Your task to perform on an android device: Is it going to rain this weekend? Image 0: 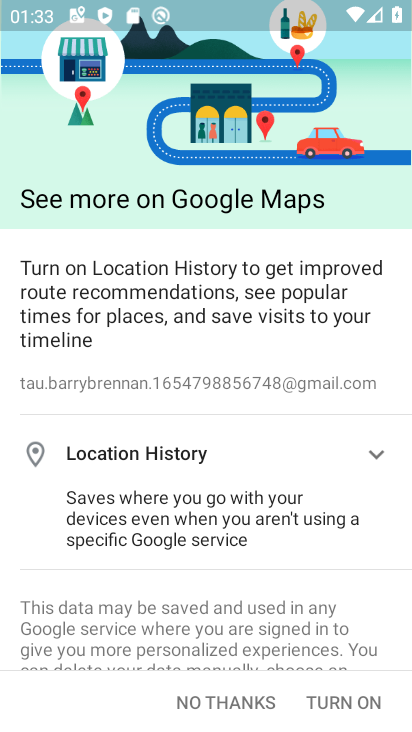
Step 0: press home button
Your task to perform on an android device: Is it going to rain this weekend? Image 1: 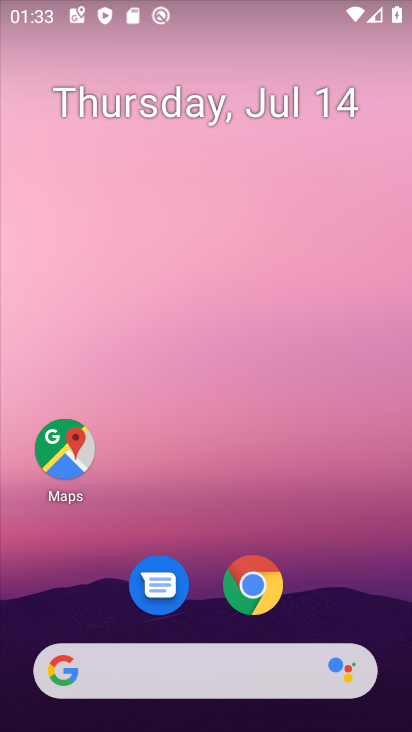
Step 1: click (226, 677)
Your task to perform on an android device: Is it going to rain this weekend? Image 2: 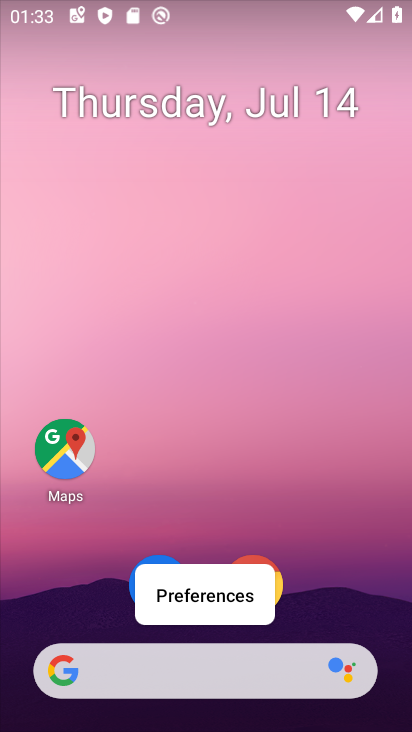
Step 2: click (166, 677)
Your task to perform on an android device: Is it going to rain this weekend? Image 3: 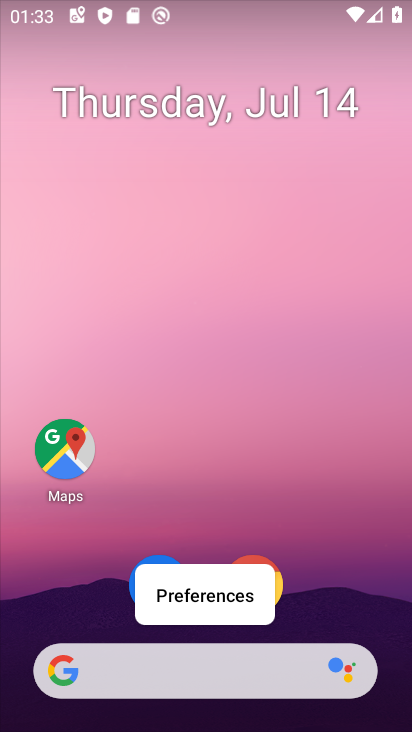
Step 3: click (121, 672)
Your task to perform on an android device: Is it going to rain this weekend? Image 4: 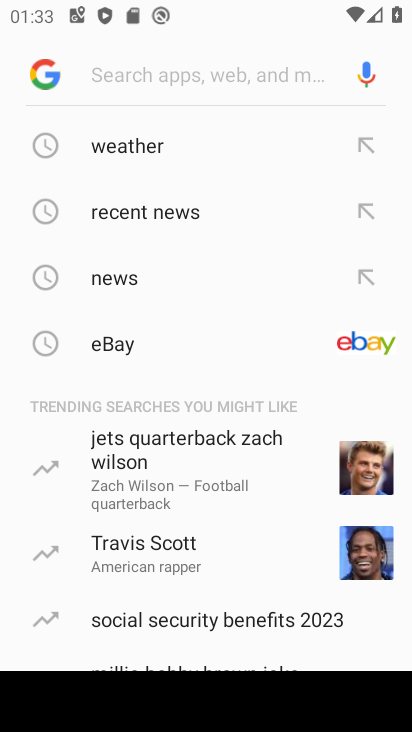
Step 4: click (127, 141)
Your task to perform on an android device: Is it going to rain this weekend? Image 5: 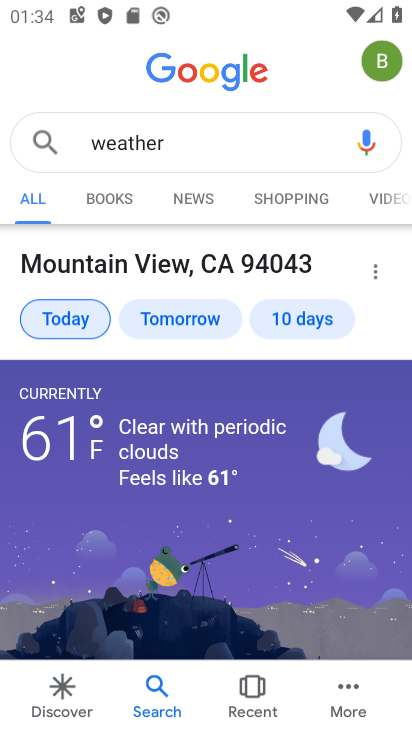
Step 5: click (76, 317)
Your task to perform on an android device: Is it going to rain this weekend? Image 6: 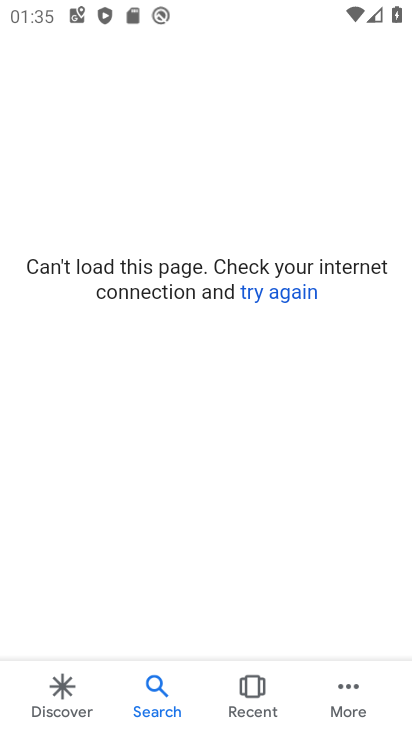
Step 6: click (291, 286)
Your task to perform on an android device: Is it going to rain this weekend? Image 7: 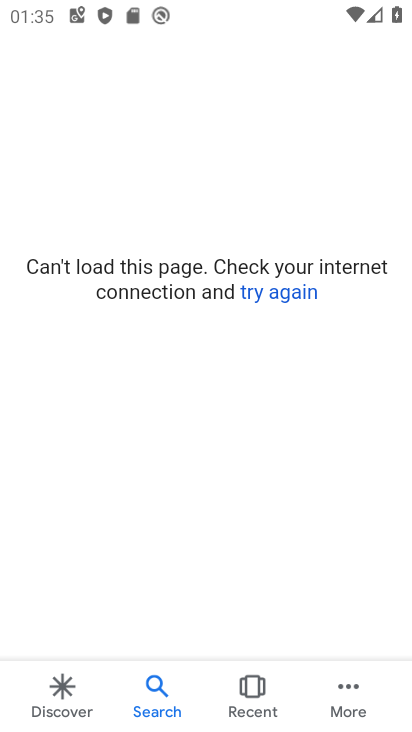
Step 7: task complete